Your task to perform on an android device: Check the news Image 0: 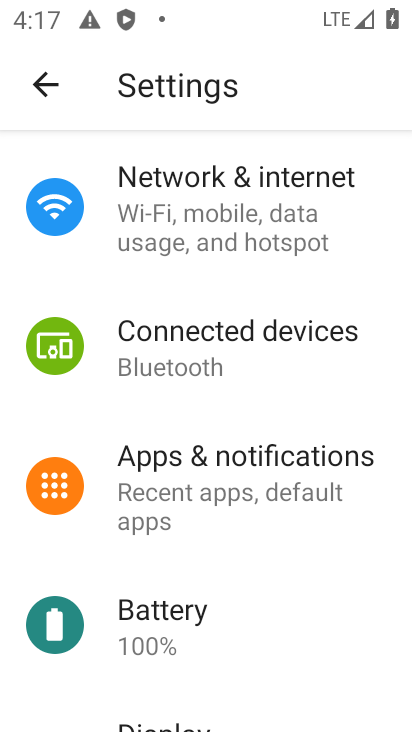
Step 0: press home button
Your task to perform on an android device: Check the news Image 1: 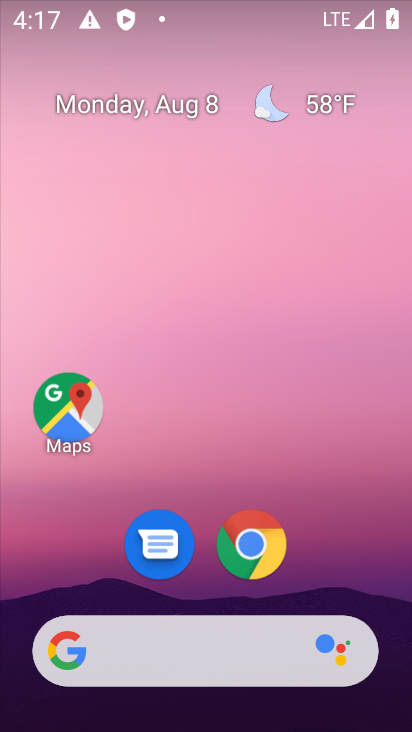
Step 1: drag from (195, 653) to (243, 121)
Your task to perform on an android device: Check the news Image 2: 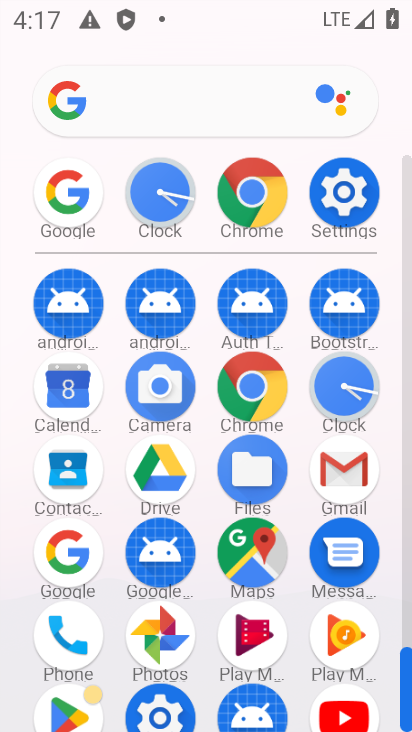
Step 2: click (155, 657)
Your task to perform on an android device: Check the news Image 3: 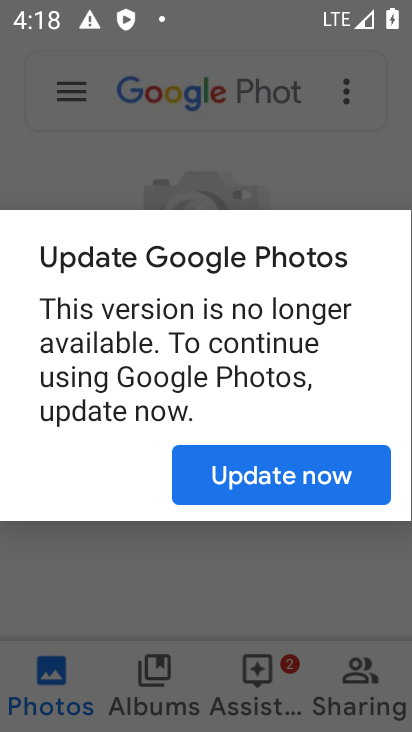
Step 3: press home button
Your task to perform on an android device: Check the news Image 4: 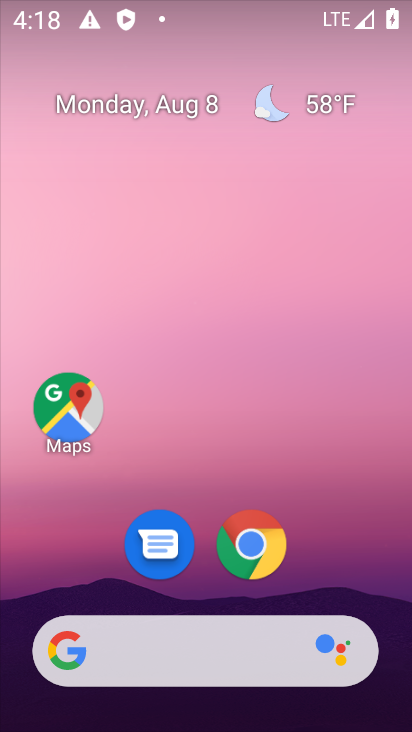
Step 4: drag from (229, 669) to (196, 122)
Your task to perform on an android device: Check the news Image 5: 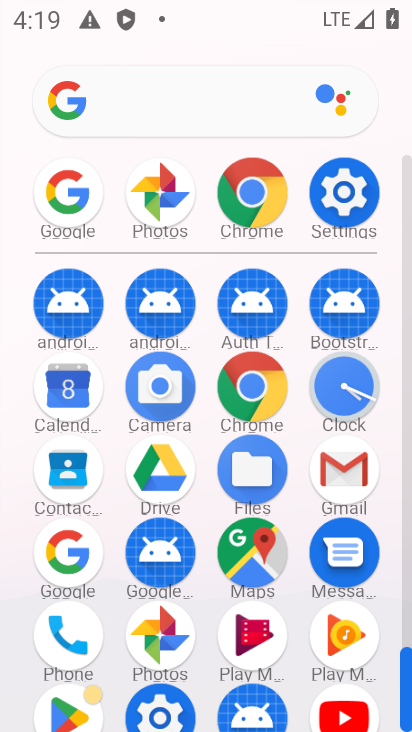
Step 5: drag from (216, 535) to (255, 153)
Your task to perform on an android device: Check the news Image 6: 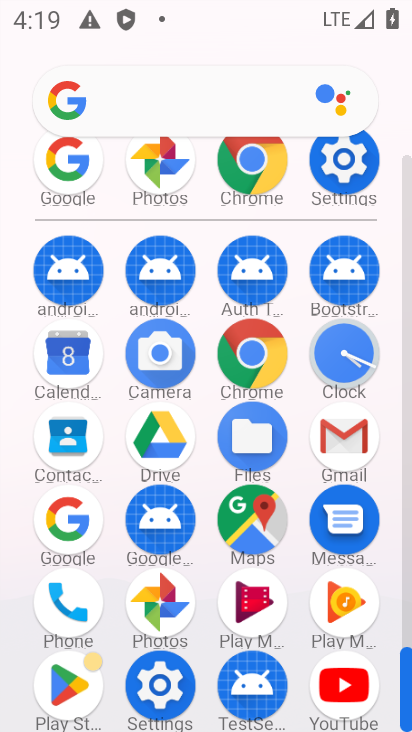
Step 6: click (82, 521)
Your task to perform on an android device: Check the news Image 7: 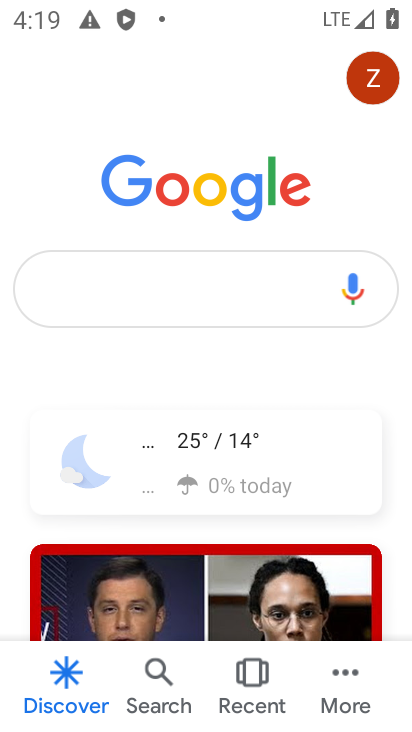
Step 7: click (153, 289)
Your task to perform on an android device: Check the news Image 8: 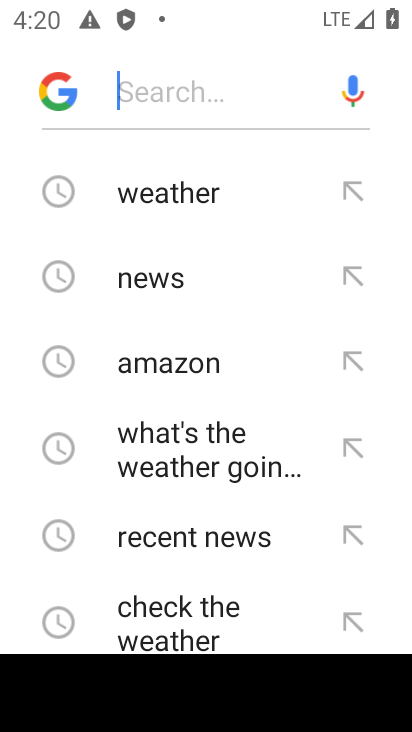
Step 8: click (155, 286)
Your task to perform on an android device: Check the news Image 9: 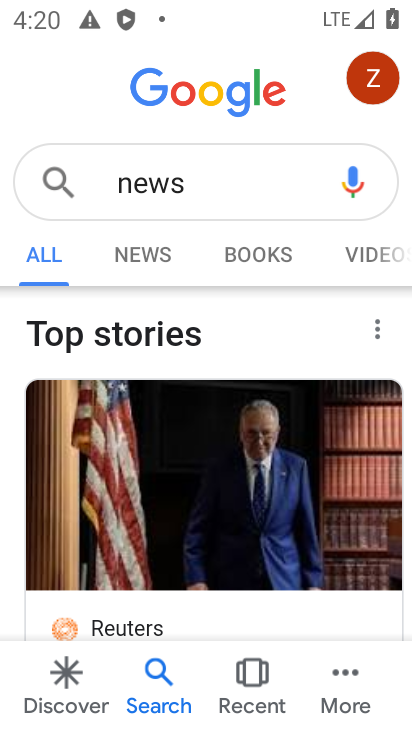
Step 9: task complete